Your task to perform on an android device: Open Google Chrome and open the bookmarks view Image 0: 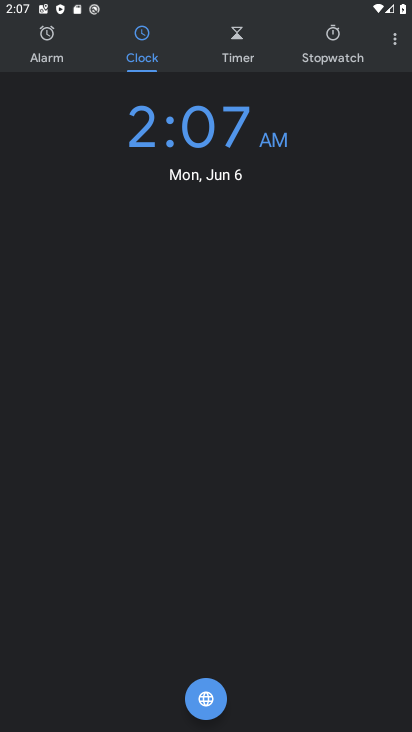
Step 0: press home button
Your task to perform on an android device: Open Google Chrome and open the bookmarks view Image 1: 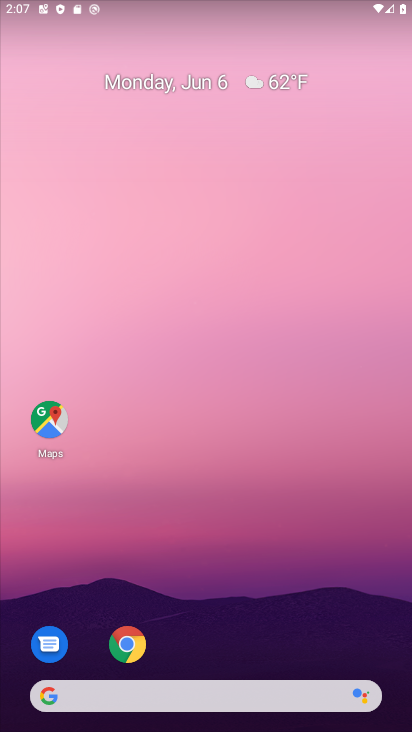
Step 1: click (119, 654)
Your task to perform on an android device: Open Google Chrome and open the bookmarks view Image 2: 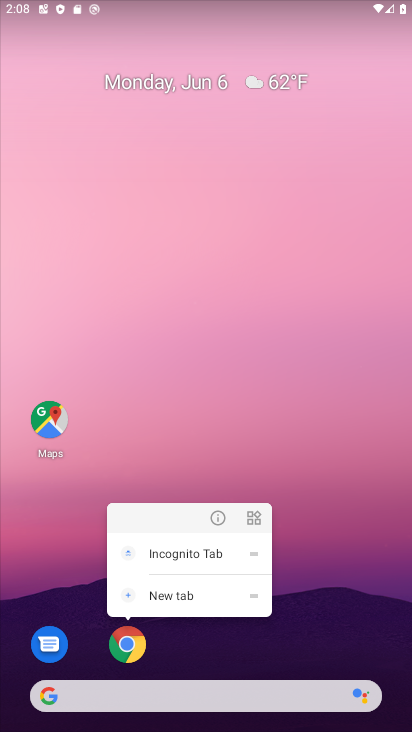
Step 2: click (117, 649)
Your task to perform on an android device: Open Google Chrome and open the bookmarks view Image 3: 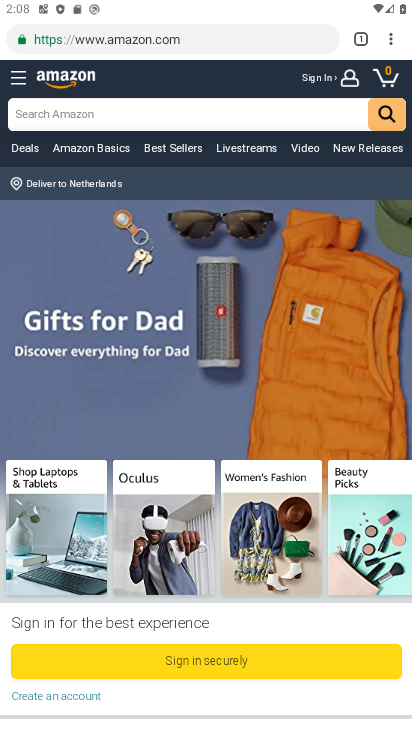
Step 3: click (391, 40)
Your task to perform on an android device: Open Google Chrome and open the bookmarks view Image 4: 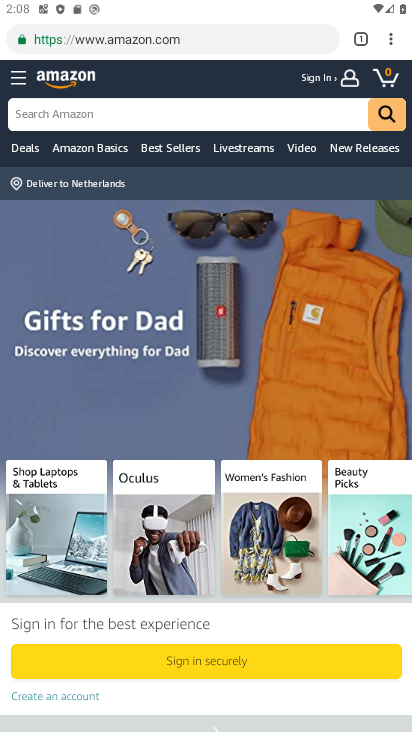
Step 4: click (399, 43)
Your task to perform on an android device: Open Google Chrome and open the bookmarks view Image 5: 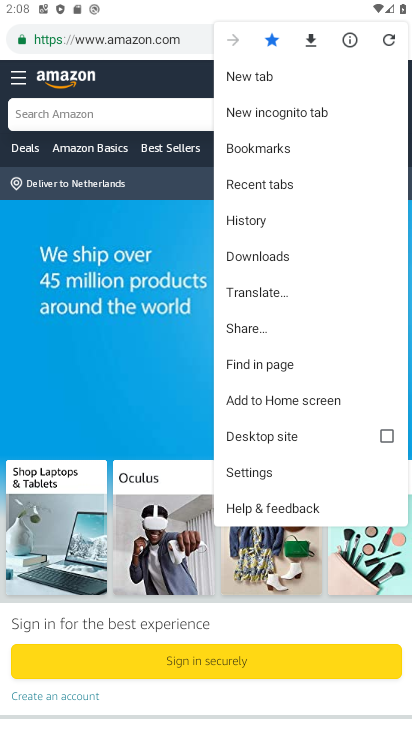
Step 5: click (255, 146)
Your task to perform on an android device: Open Google Chrome and open the bookmarks view Image 6: 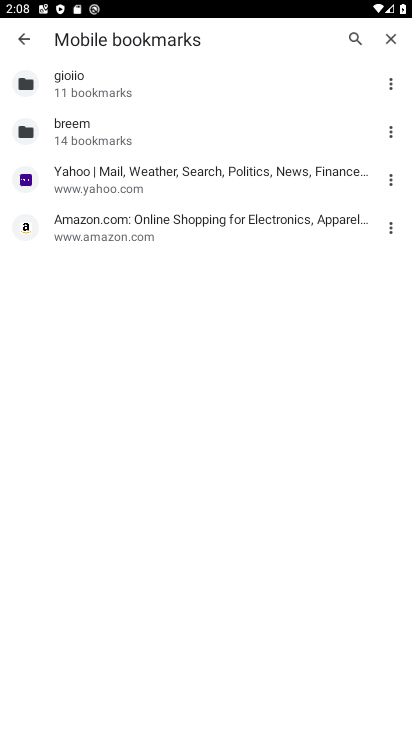
Step 6: click (85, 177)
Your task to perform on an android device: Open Google Chrome and open the bookmarks view Image 7: 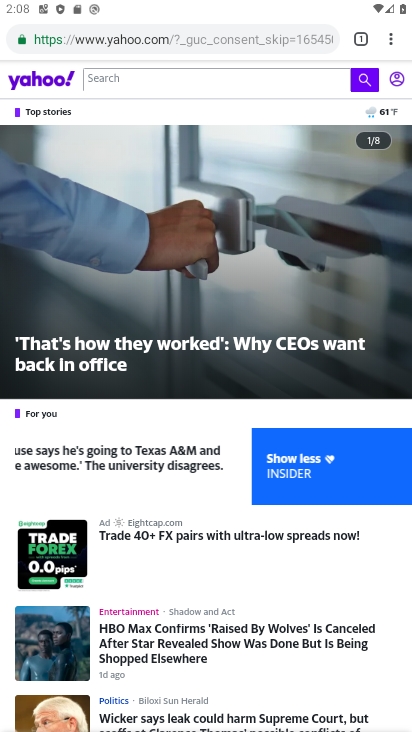
Step 7: task complete